Your task to perform on an android device: choose inbox layout in the gmail app Image 0: 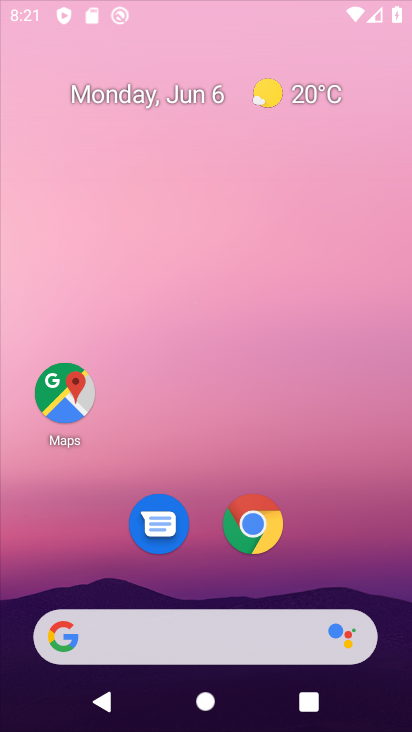
Step 0: click (248, 324)
Your task to perform on an android device: choose inbox layout in the gmail app Image 1: 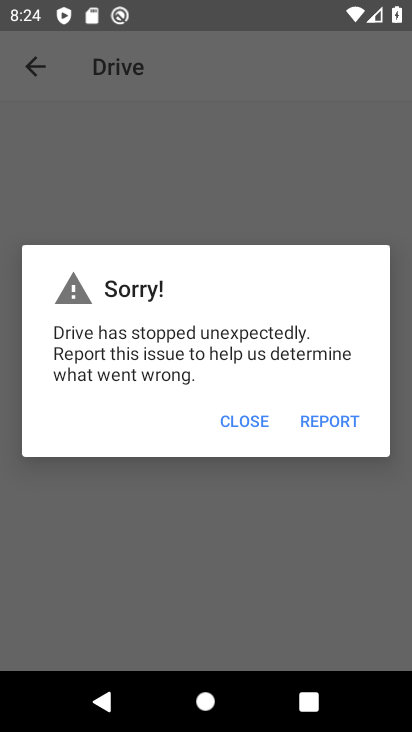
Step 1: press home button
Your task to perform on an android device: choose inbox layout in the gmail app Image 2: 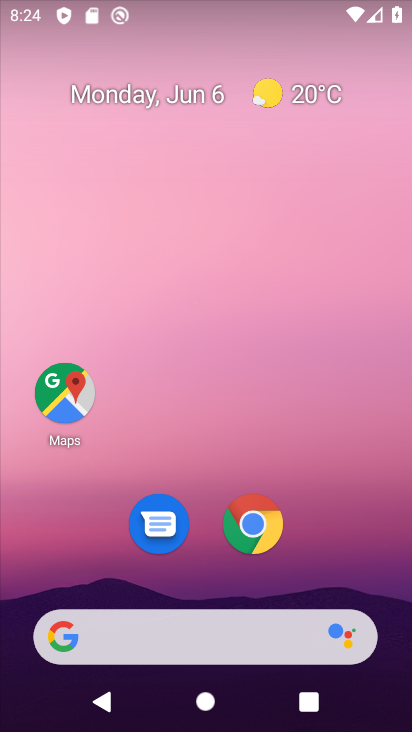
Step 2: drag from (179, 446) to (182, 38)
Your task to perform on an android device: choose inbox layout in the gmail app Image 3: 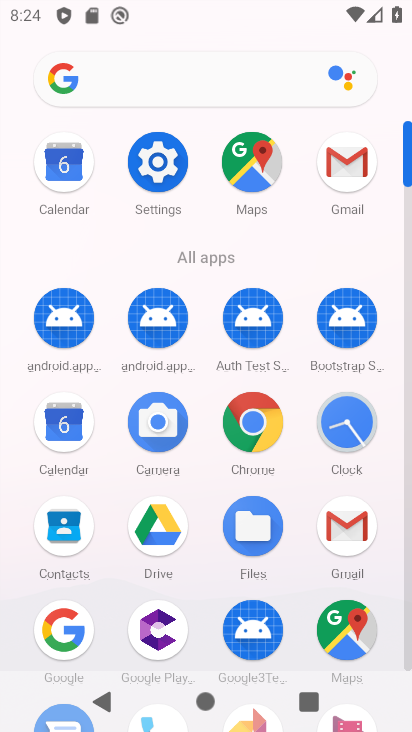
Step 3: click (349, 165)
Your task to perform on an android device: choose inbox layout in the gmail app Image 4: 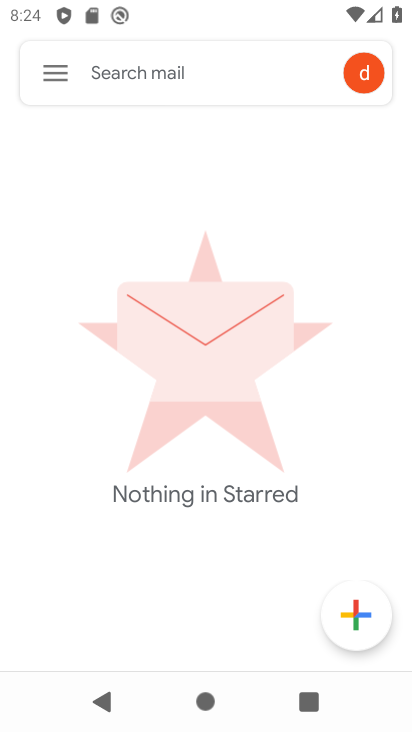
Step 4: click (60, 70)
Your task to perform on an android device: choose inbox layout in the gmail app Image 5: 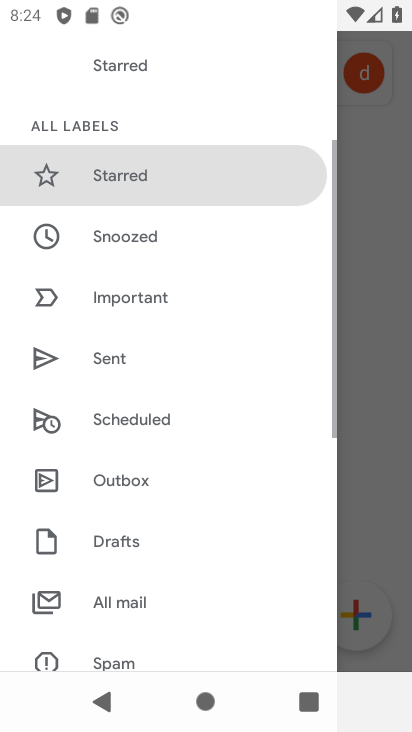
Step 5: drag from (161, 500) to (202, 166)
Your task to perform on an android device: choose inbox layout in the gmail app Image 6: 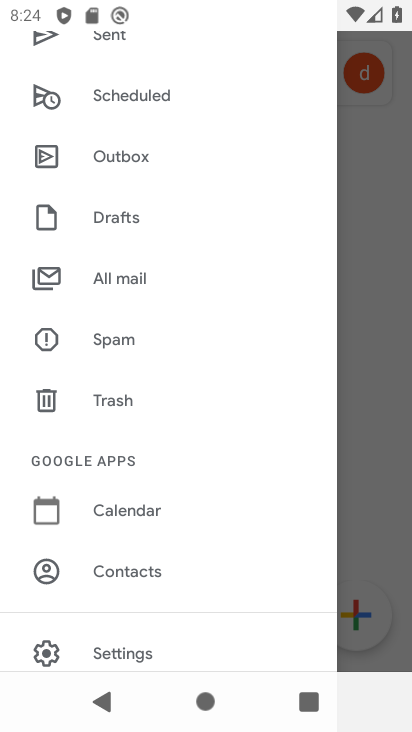
Step 6: click (139, 652)
Your task to perform on an android device: choose inbox layout in the gmail app Image 7: 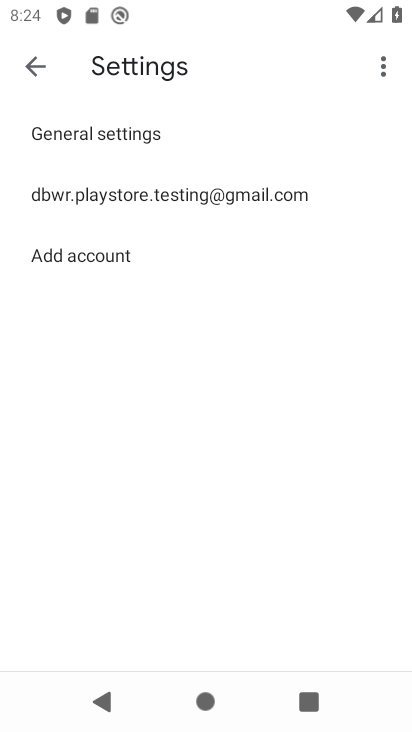
Step 7: click (121, 194)
Your task to perform on an android device: choose inbox layout in the gmail app Image 8: 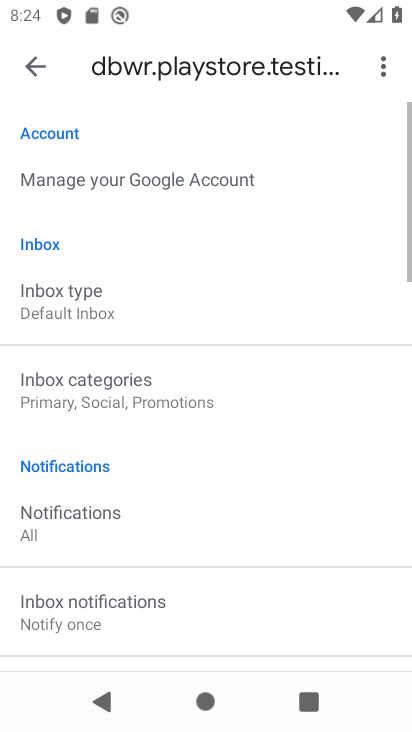
Step 8: click (81, 294)
Your task to perform on an android device: choose inbox layout in the gmail app Image 9: 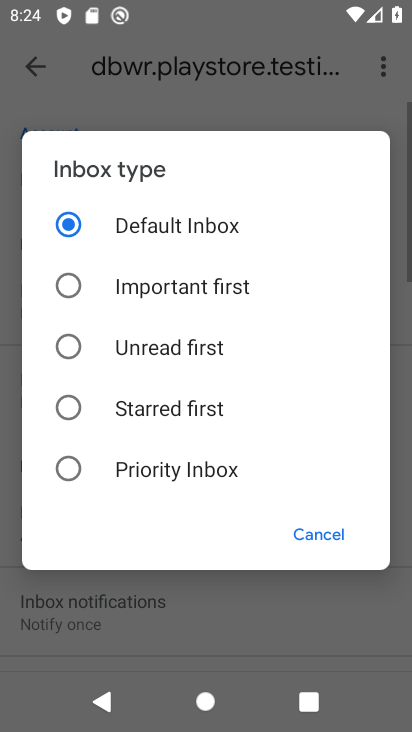
Step 9: click (81, 294)
Your task to perform on an android device: choose inbox layout in the gmail app Image 10: 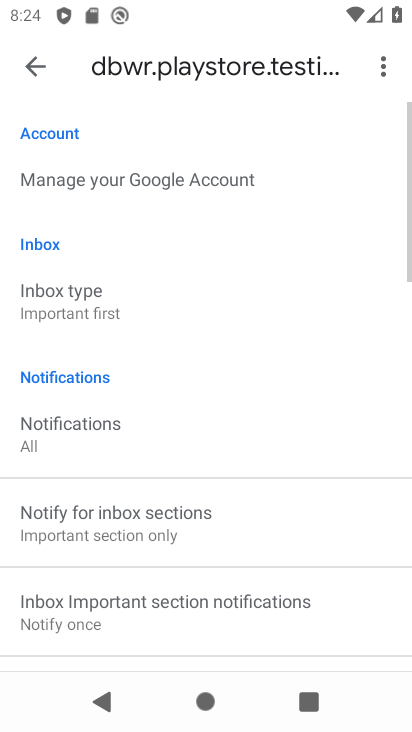
Step 10: task complete